Your task to perform on an android device: toggle pop-ups in chrome Image 0: 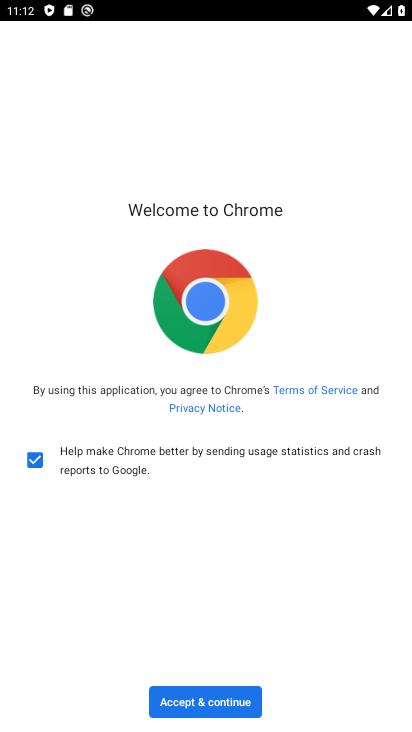
Step 0: click (242, 694)
Your task to perform on an android device: toggle pop-ups in chrome Image 1: 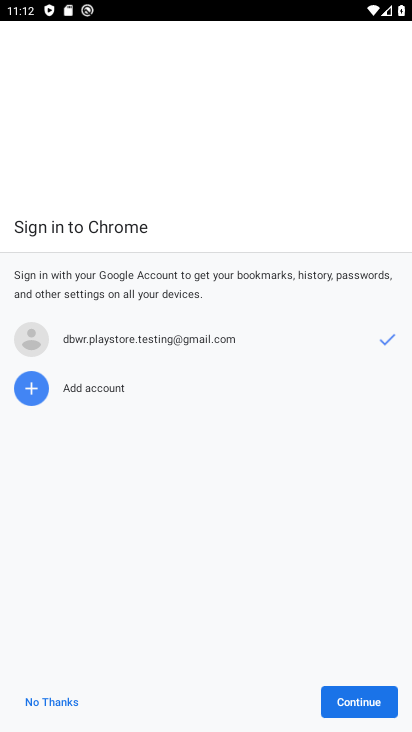
Step 1: click (342, 687)
Your task to perform on an android device: toggle pop-ups in chrome Image 2: 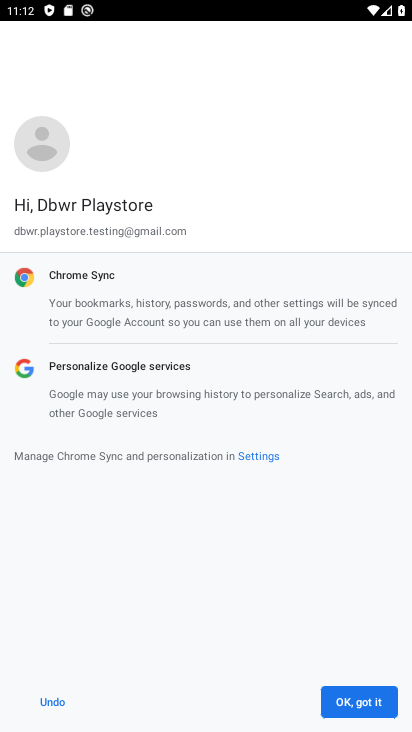
Step 2: click (351, 702)
Your task to perform on an android device: toggle pop-ups in chrome Image 3: 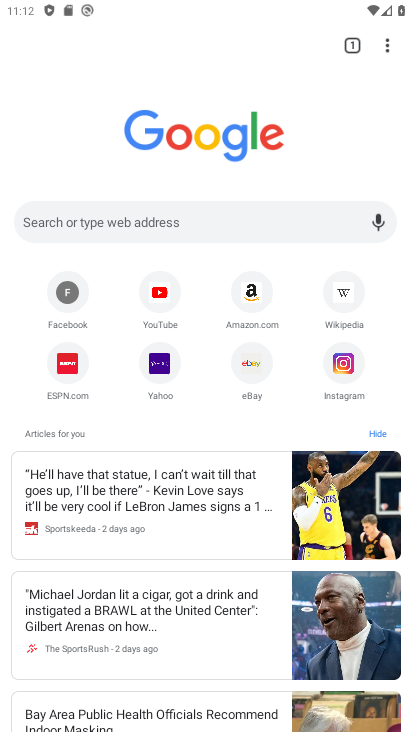
Step 3: click (385, 37)
Your task to perform on an android device: toggle pop-ups in chrome Image 4: 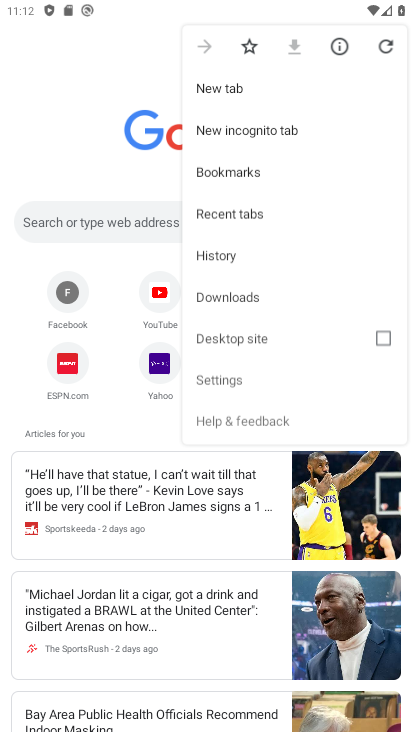
Step 4: click (389, 43)
Your task to perform on an android device: toggle pop-ups in chrome Image 5: 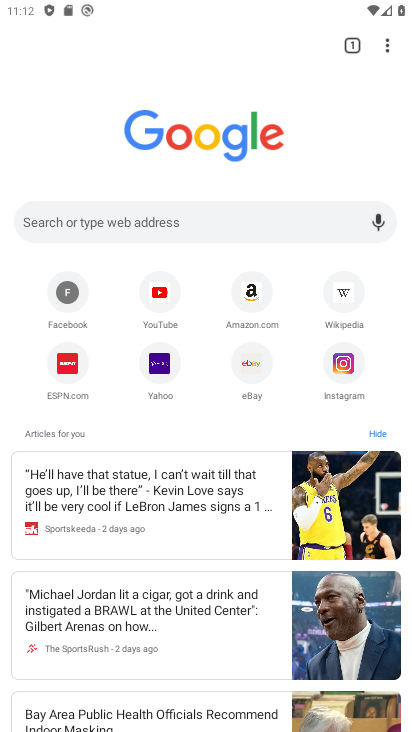
Step 5: click (384, 41)
Your task to perform on an android device: toggle pop-ups in chrome Image 6: 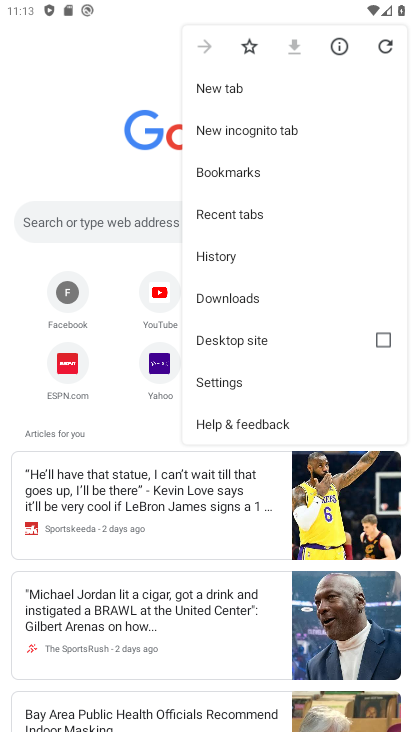
Step 6: click (250, 380)
Your task to perform on an android device: toggle pop-ups in chrome Image 7: 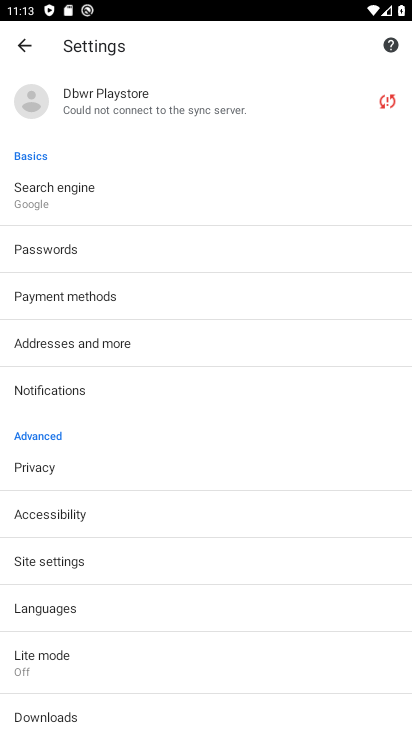
Step 7: click (50, 560)
Your task to perform on an android device: toggle pop-ups in chrome Image 8: 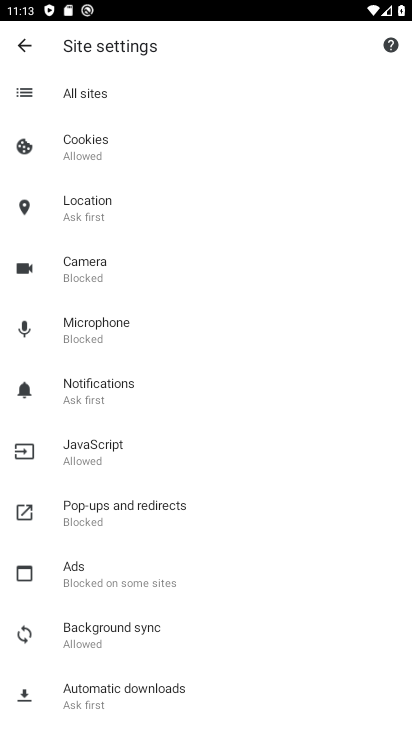
Step 8: drag from (169, 700) to (155, 210)
Your task to perform on an android device: toggle pop-ups in chrome Image 9: 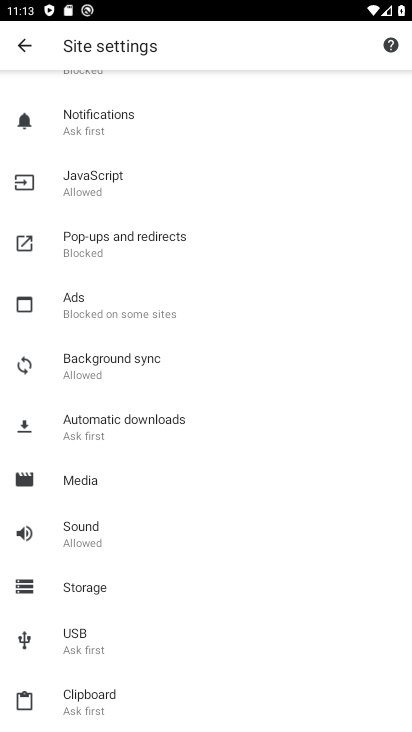
Step 9: click (140, 509)
Your task to perform on an android device: toggle pop-ups in chrome Image 10: 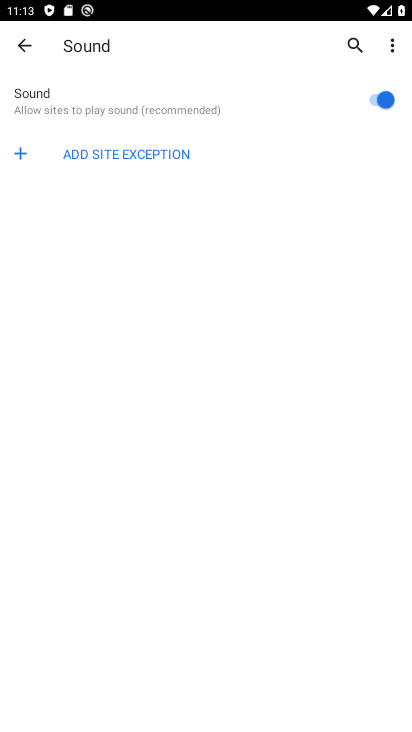
Step 10: click (122, 240)
Your task to perform on an android device: toggle pop-ups in chrome Image 11: 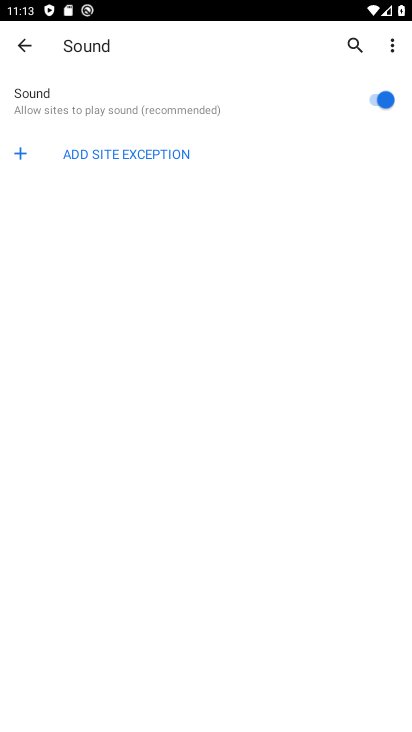
Step 11: click (23, 47)
Your task to perform on an android device: toggle pop-ups in chrome Image 12: 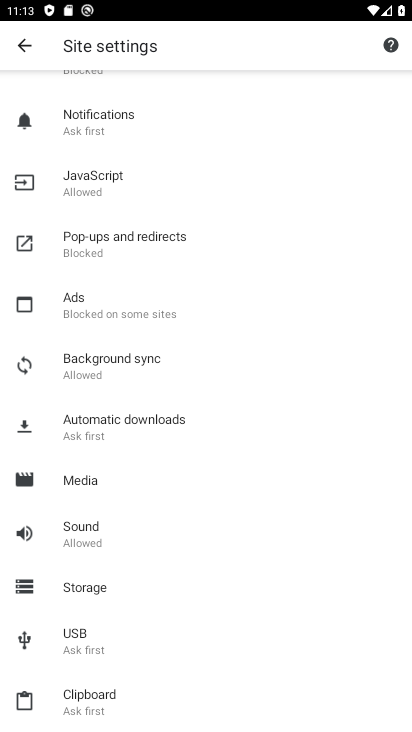
Step 12: click (115, 241)
Your task to perform on an android device: toggle pop-ups in chrome Image 13: 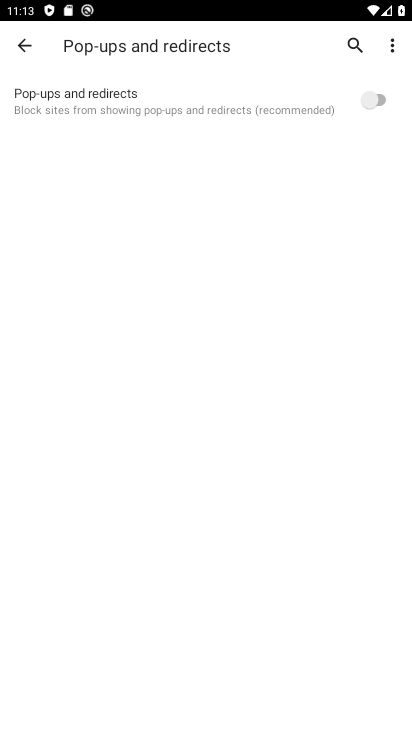
Step 13: click (115, 241)
Your task to perform on an android device: toggle pop-ups in chrome Image 14: 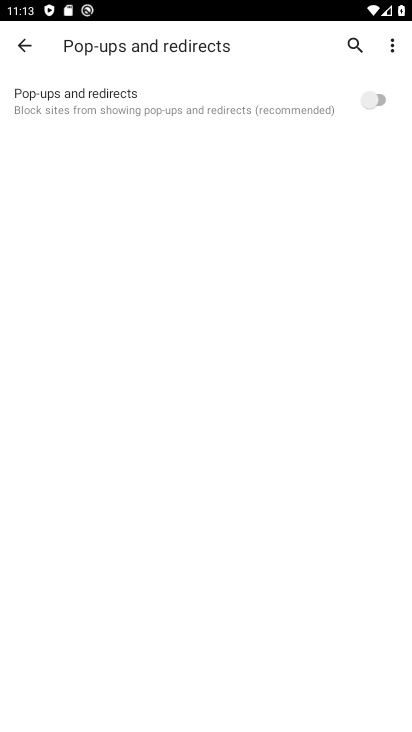
Step 14: click (383, 100)
Your task to perform on an android device: toggle pop-ups in chrome Image 15: 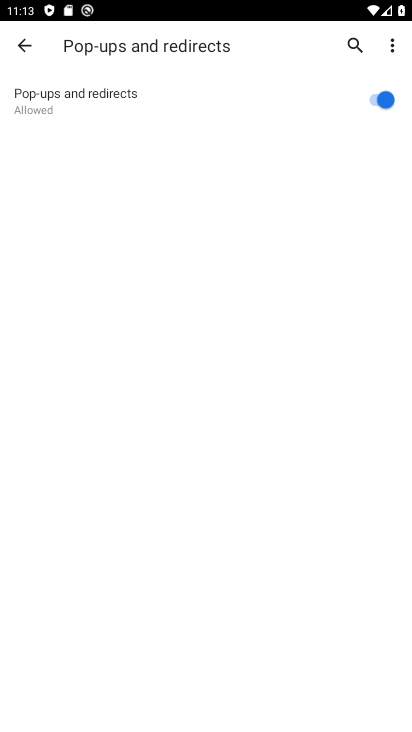
Step 15: task complete